Your task to perform on an android device: turn on airplane mode Image 0: 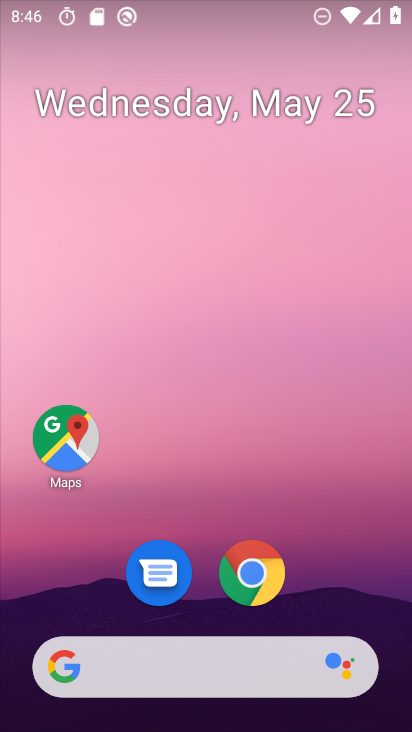
Step 0: drag from (387, 649) to (313, 95)
Your task to perform on an android device: turn on airplane mode Image 1: 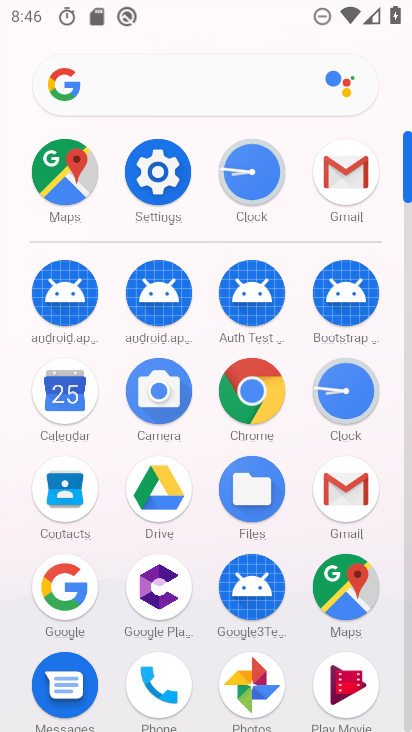
Step 1: click (179, 187)
Your task to perform on an android device: turn on airplane mode Image 2: 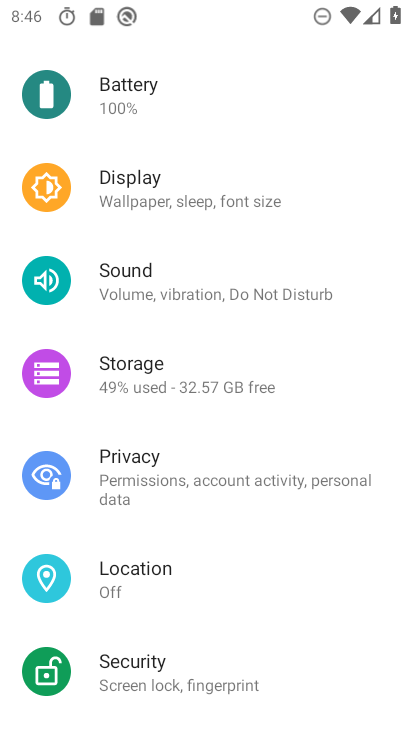
Step 2: drag from (244, 110) to (322, 669)
Your task to perform on an android device: turn on airplane mode Image 3: 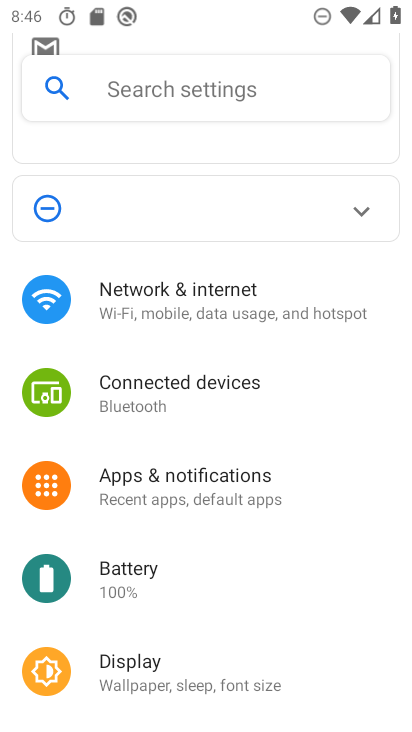
Step 3: click (173, 305)
Your task to perform on an android device: turn on airplane mode Image 4: 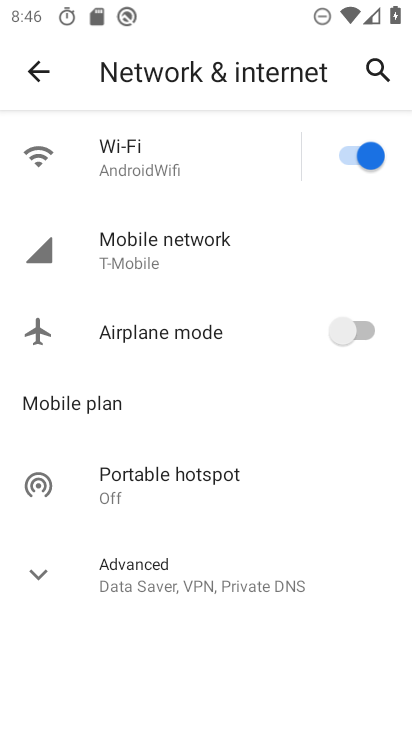
Step 4: click (360, 326)
Your task to perform on an android device: turn on airplane mode Image 5: 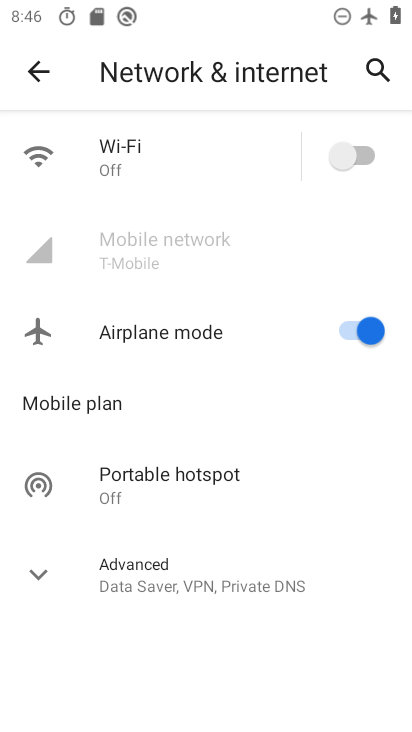
Step 5: task complete